Your task to perform on an android device: toggle pop-ups in chrome Image 0: 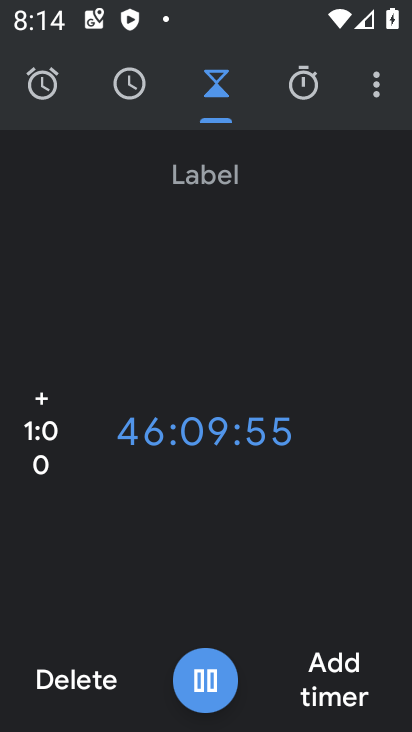
Step 0: press home button
Your task to perform on an android device: toggle pop-ups in chrome Image 1: 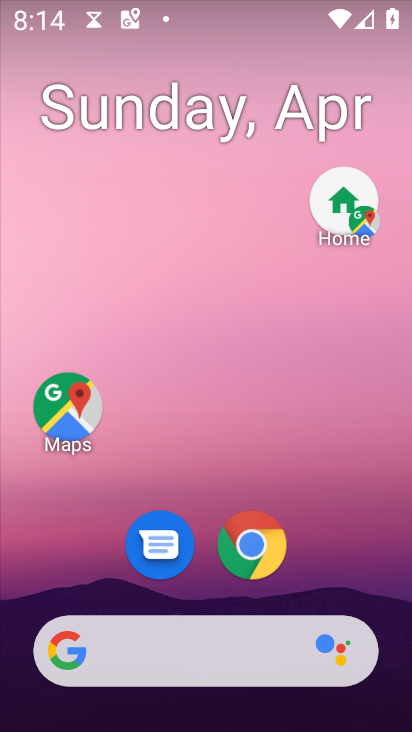
Step 1: drag from (197, 569) to (227, 190)
Your task to perform on an android device: toggle pop-ups in chrome Image 2: 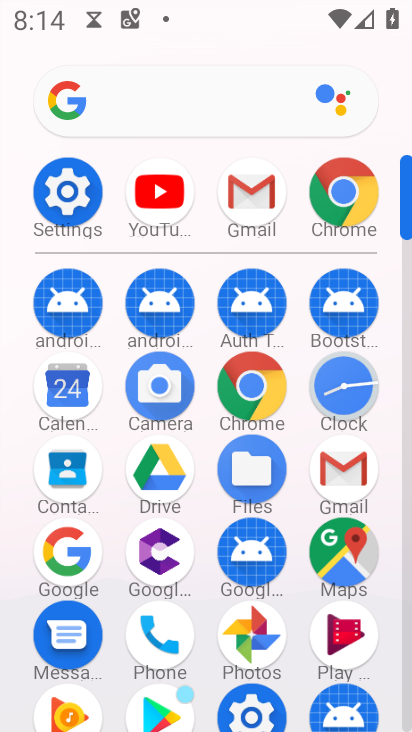
Step 2: click (257, 383)
Your task to perform on an android device: toggle pop-ups in chrome Image 3: 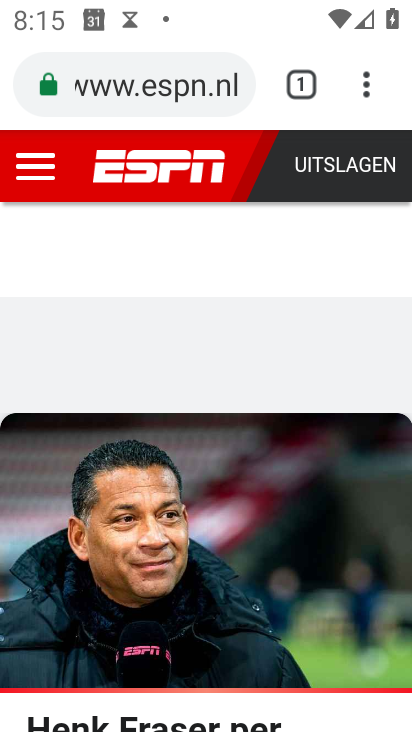
Step 3: click (351, 84)
Your task to perform on an android device: toggle pop-ups in chrome Image 4: 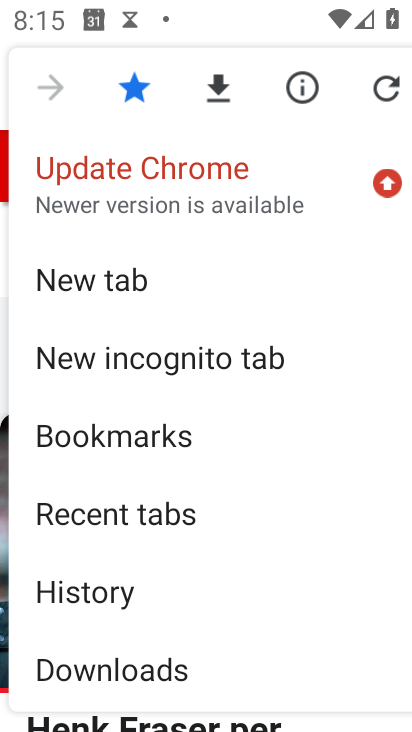
Step 4: drag from (280, 621) to (296, 216)
Your task to perform on an android device: toggle pop-ups in chrome Image 5: 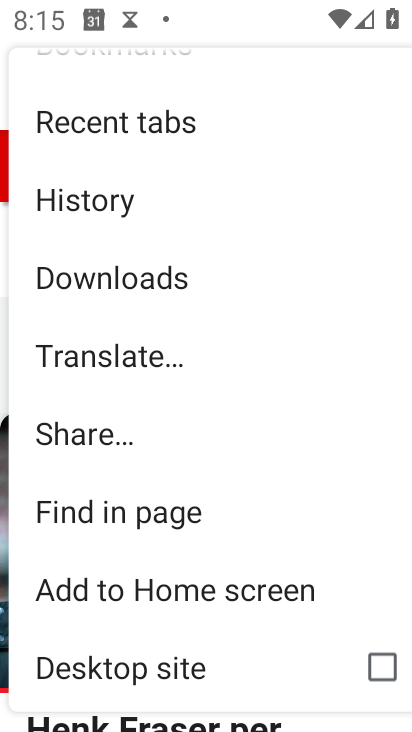
Step 5: drag from (172, 609) to (200, 137)
Your task to perform on an android device: toggle pop-ups in chrome Image 6: 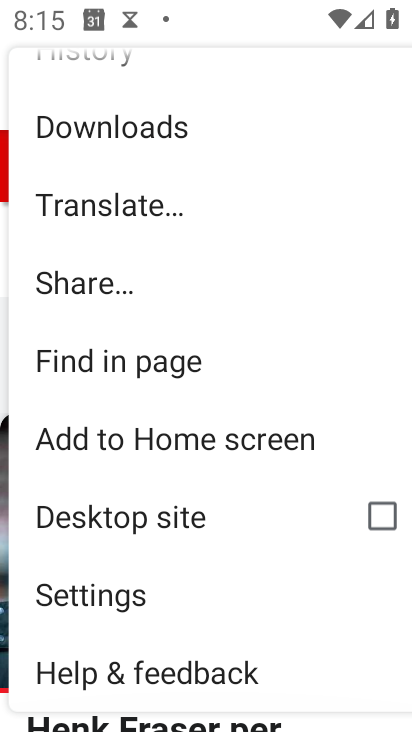
Step 6: click (116, 589)
Your task to perform on an android device: toggle pop-ups in chrome Image 7: 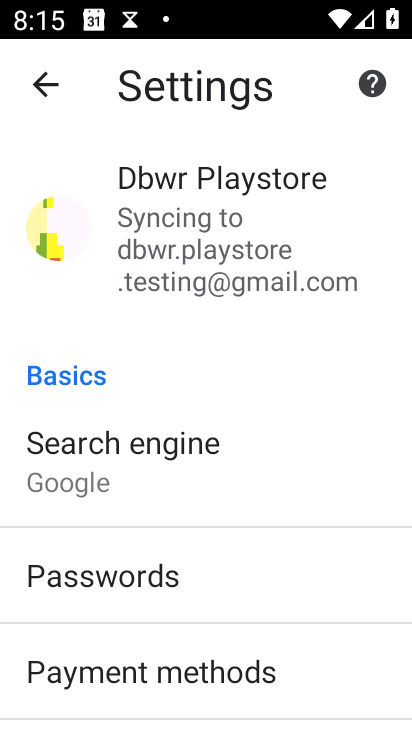
Step 7: drag from (208, 651) to (266, 216)
Your task to perform on an android device: toggle pop-ups in chrome Image 8: 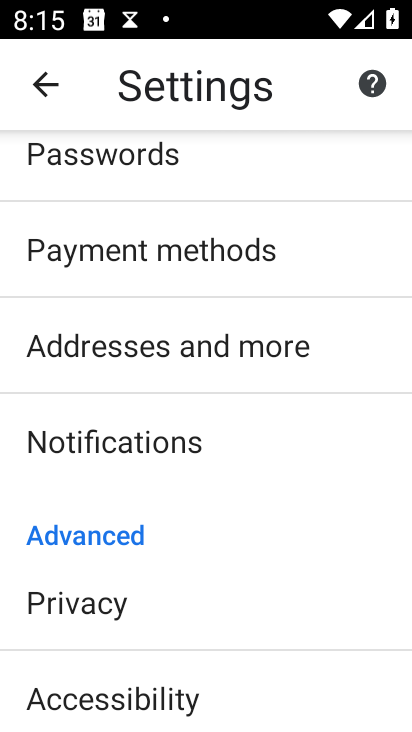
Step 8: drag from (203, 653) to (249, 175)
Your task to perform on an android device: toggle pop-ups in chrome Image 9: 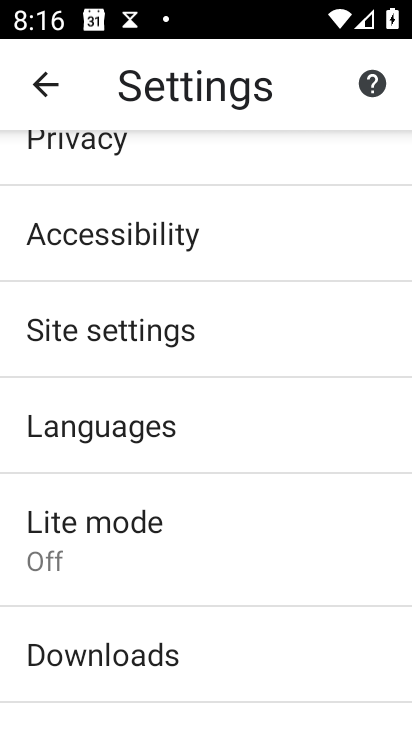
Step 9: click (201, 323)
Your task to perform on an android device: toggle pop-ups in chrome Image 10: 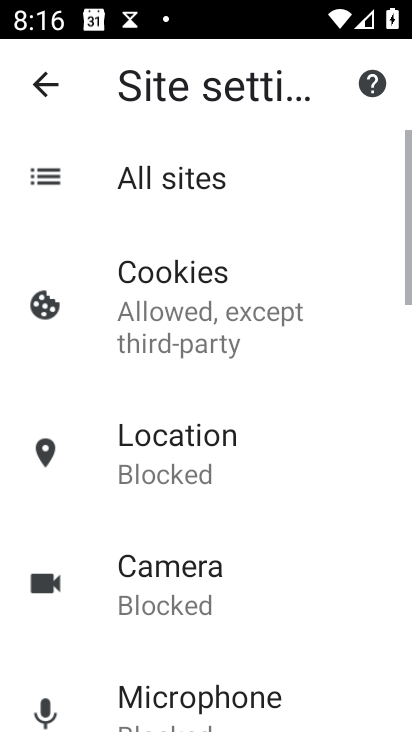
Step 10: drag from (290, 499) to (337, 150)
Your task to perform on an android device: toggle pop-ups in chrome Image 11: 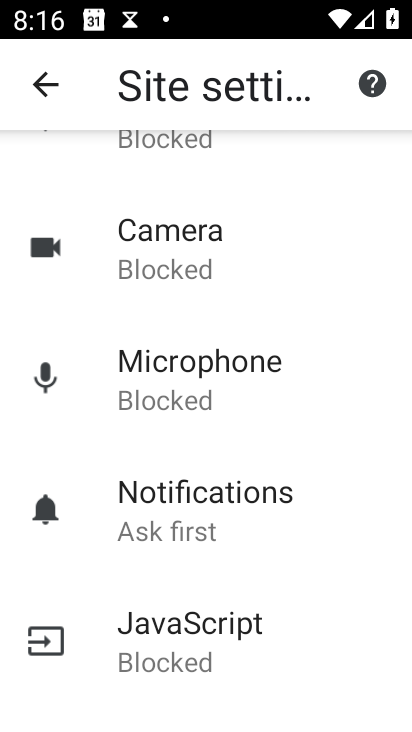
Step 11: drag from (270, 575) to (290, 145)
Your task to perform on an android device: toggle pop-ups in chrome Image 12: 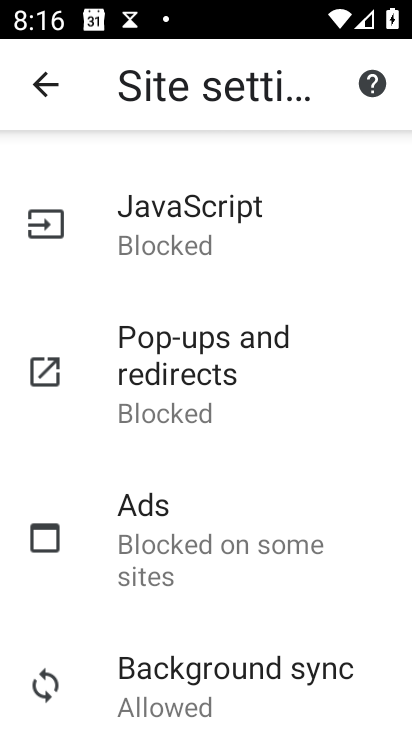
Step 12: click (206, 342)
Your task to perform on an android device: toggle pop-ups in chrome Image 13: 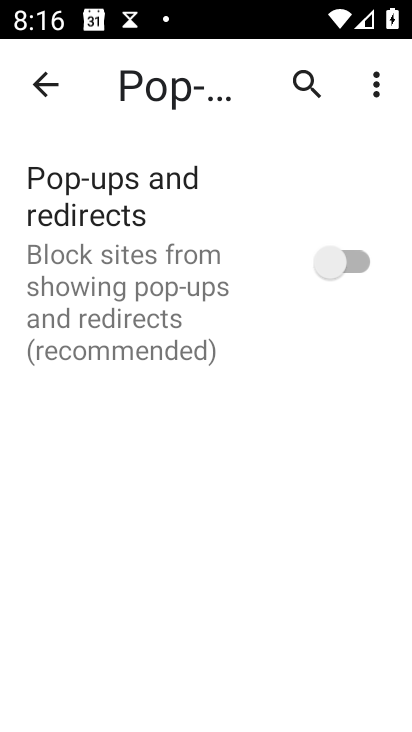
Step 13: click (348, 266)
Your task to perform on an android device: toggle pop-ups in chrome Image 14: 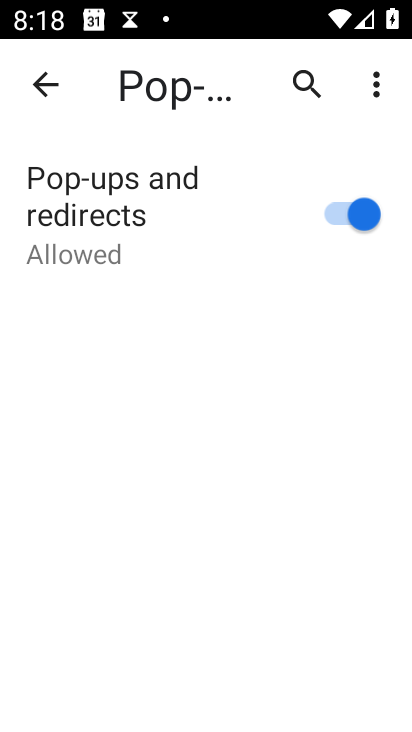
Step 14: task complete